Your task to perform on an android device: change alarm snooze length Image 0: 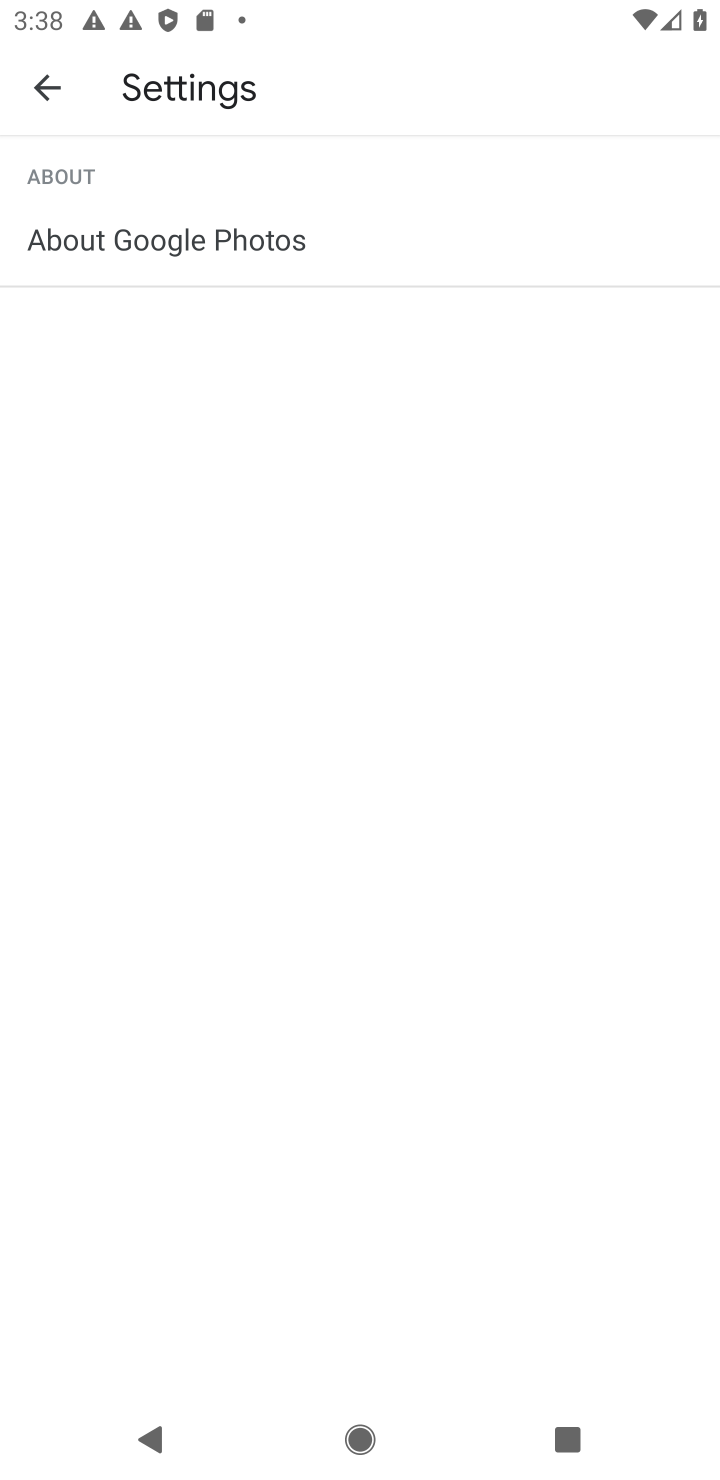
Step 0: press home button
Your task to perform on an android device: change alarm snooze length Image 1: 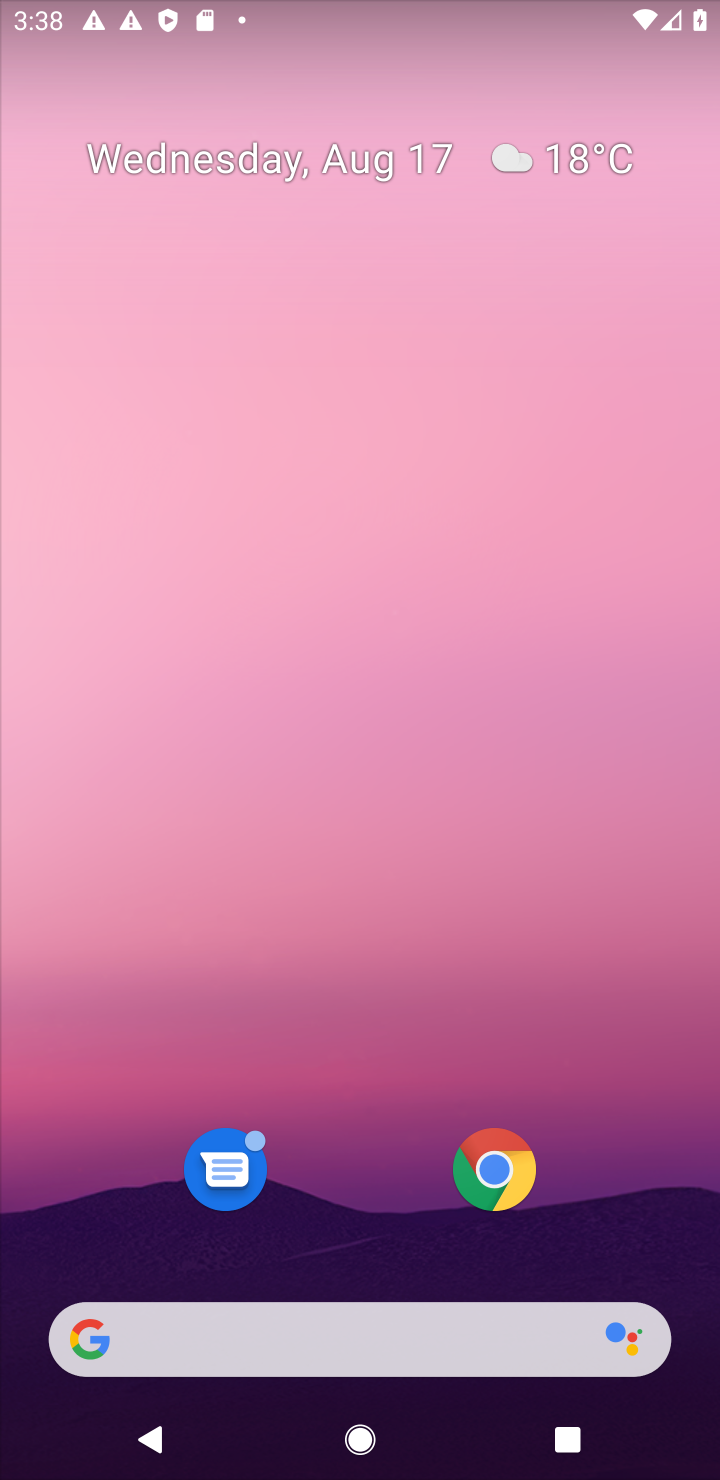
Step 1: drag from (375, 1156) to (253, 237)
Your task to perform on an android device: change alarm snooze length Image 2: 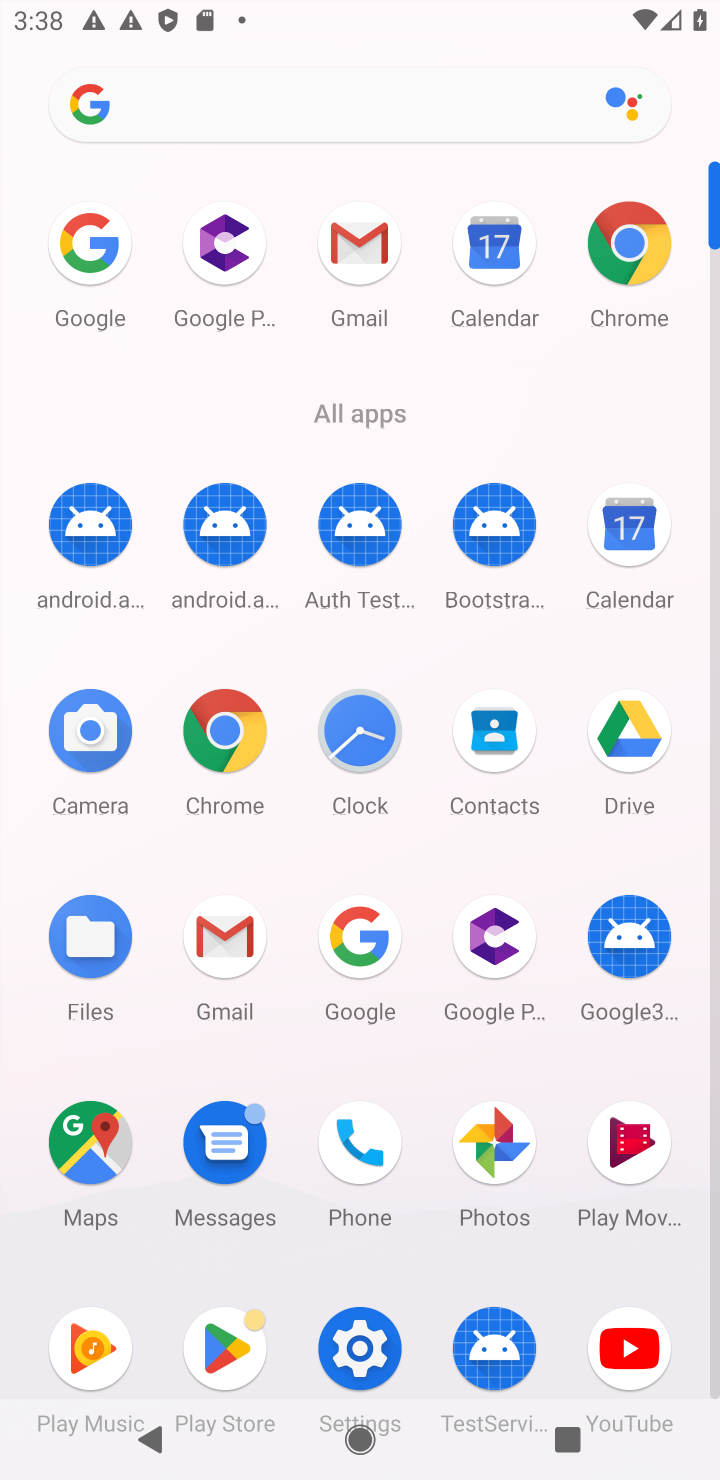
Step 2: click (362, 731)
Your task to perform on an android device: change alarm snooze length Image 3: 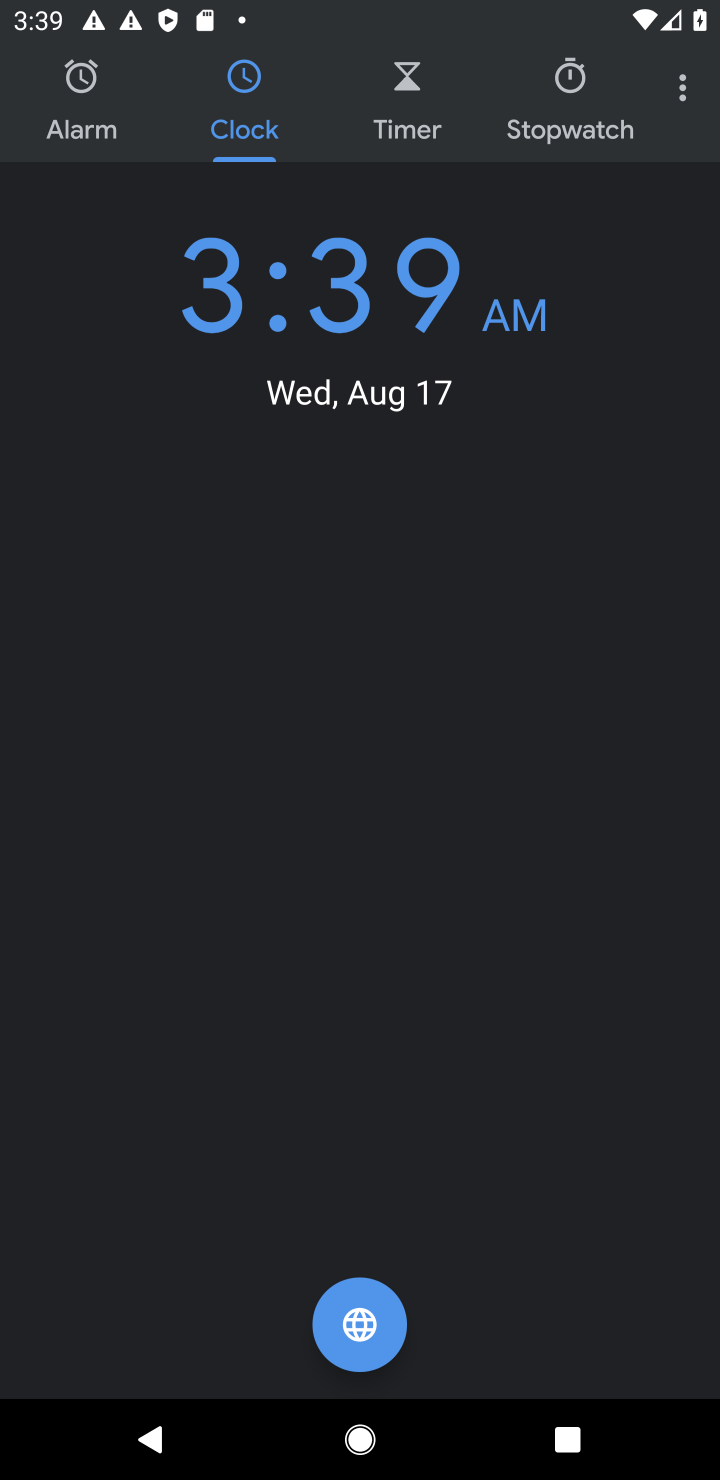
Step 3: click (682, 86)
Your task to perform on an android device: change alarm snooze length Image 4: 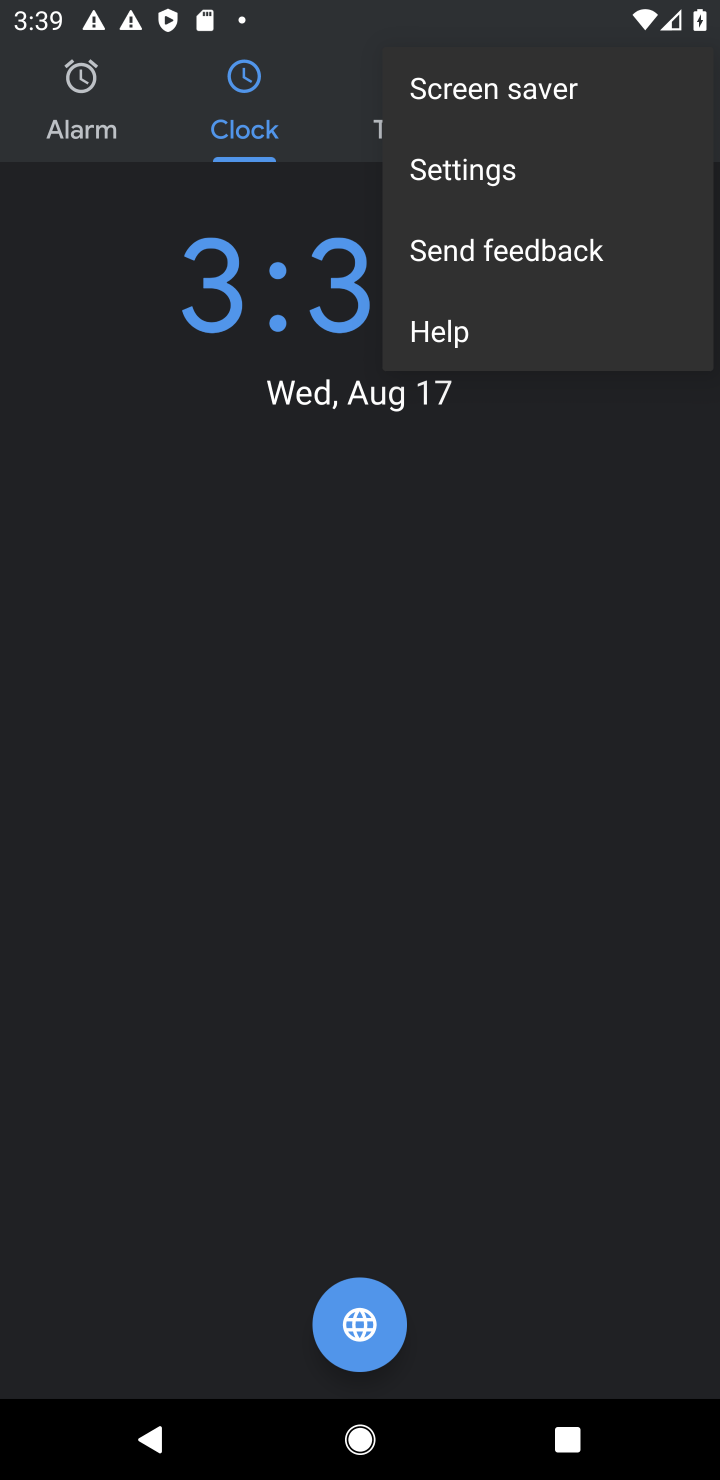
Step 4: click (480, 160)
Your task to perform on an android device: change alarm snooze length Image 5: 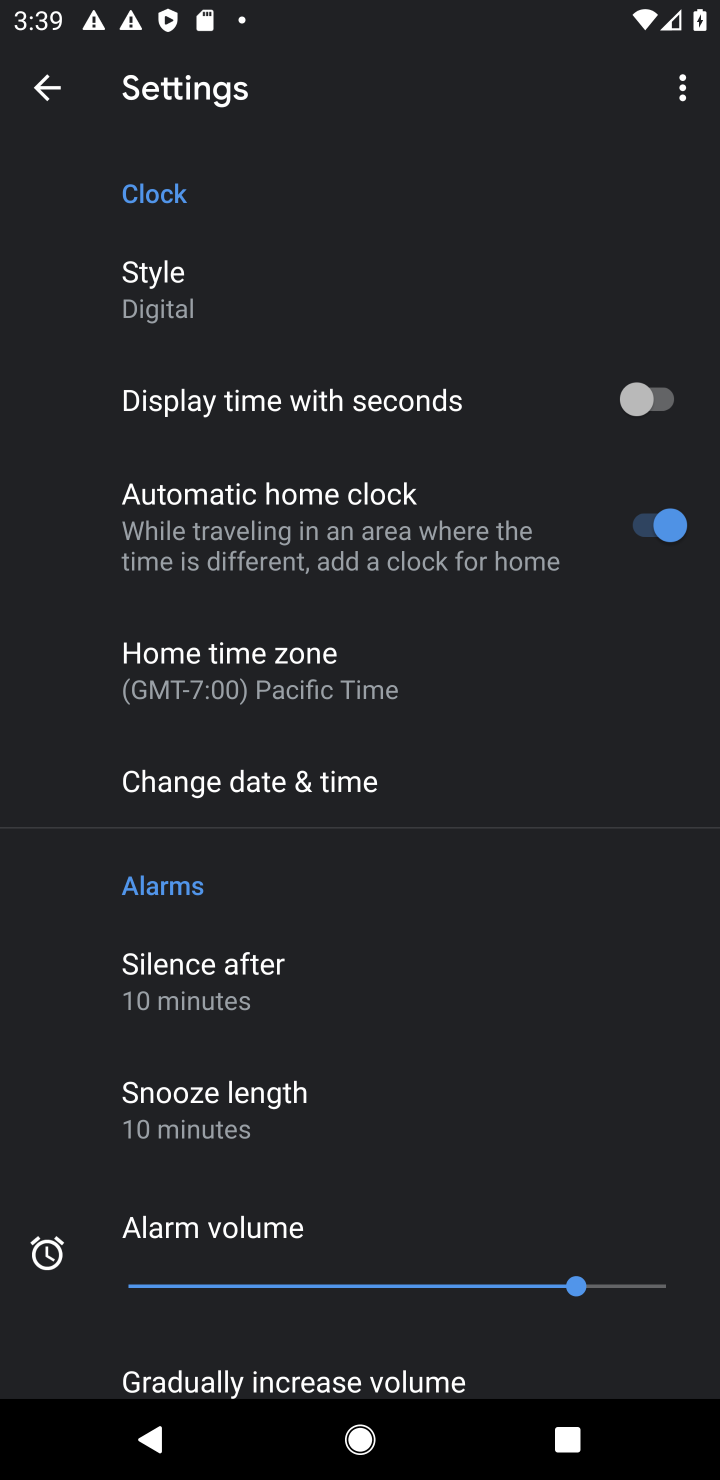
Step 5: click (208, 1094)
Your task to perform on an android device: change alarm snooze length Image 6: 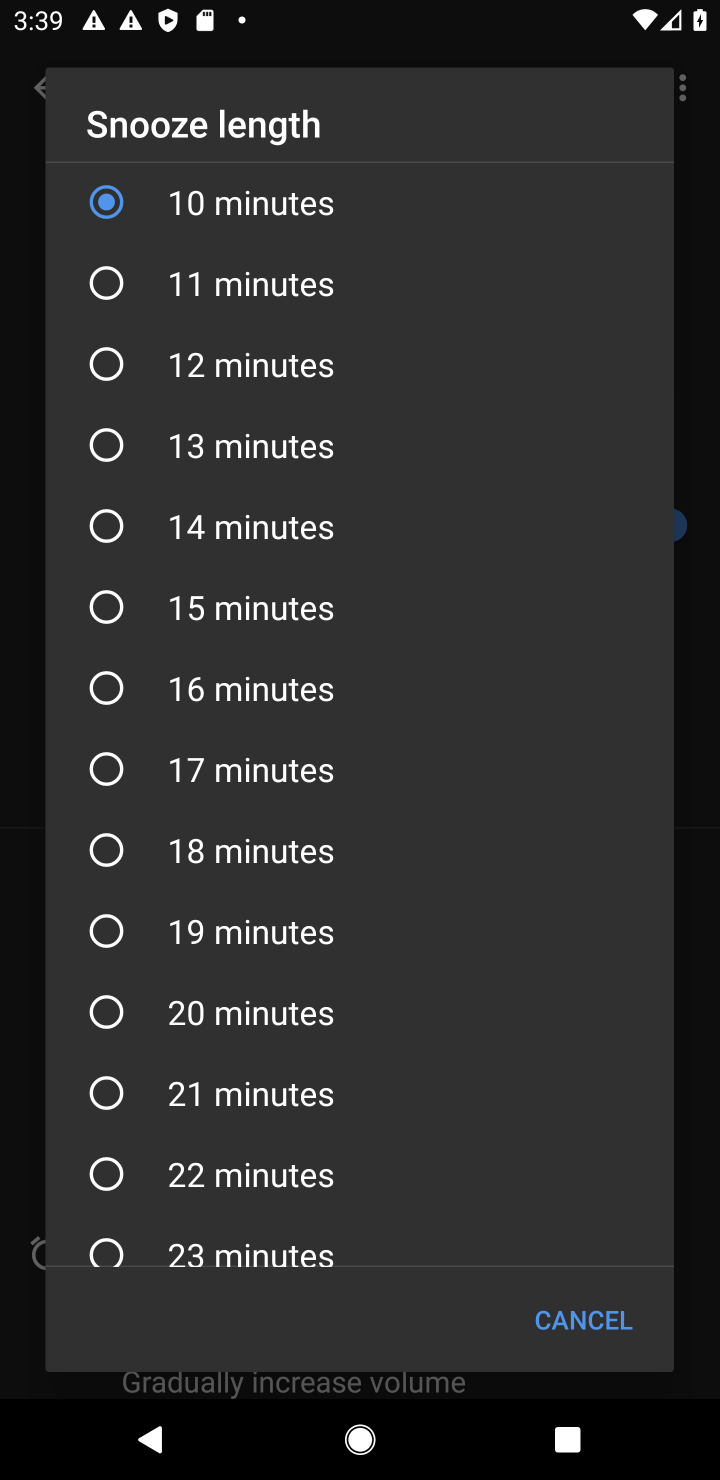
Step 6: click (248, 288)
Your task to perform on an android device: change alarm snooze length Image 7: 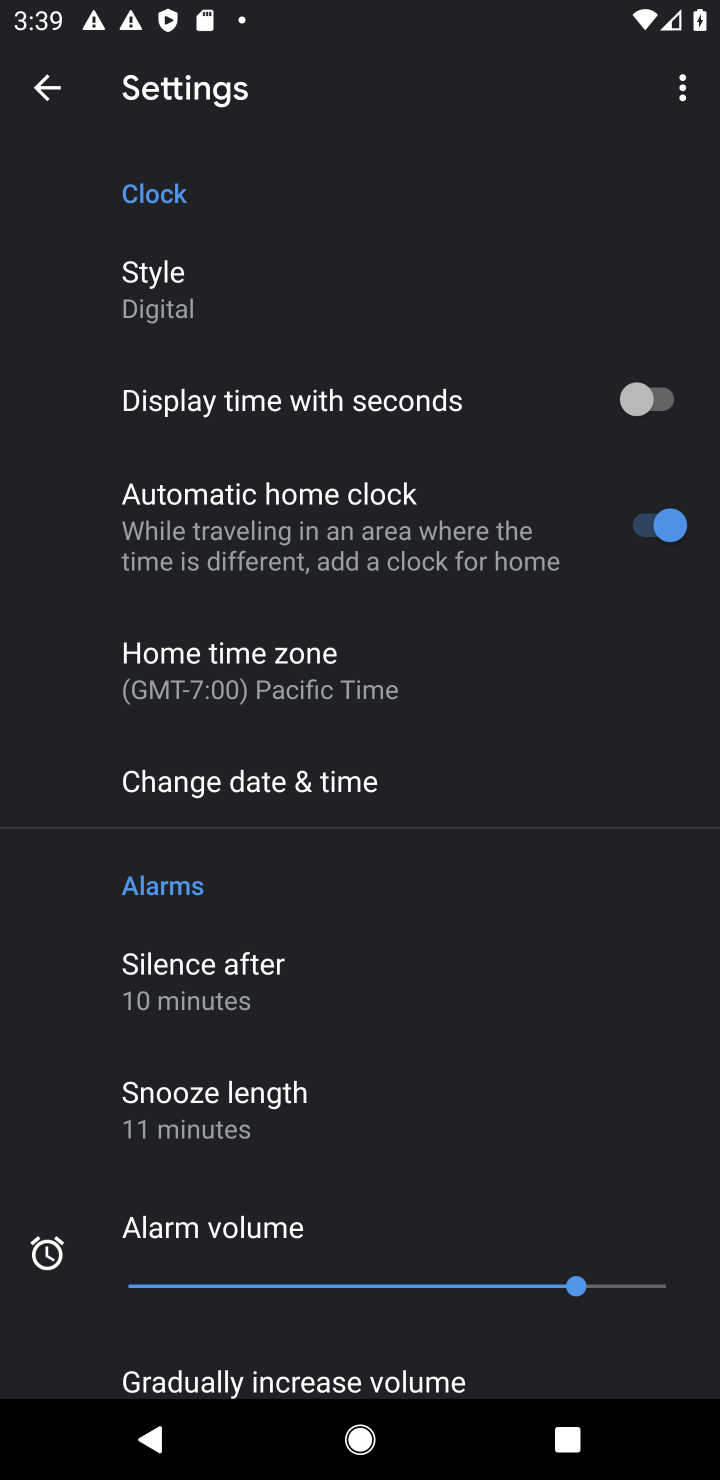
Step 7: task complete